Your task to perform on an android device: toggle wifi Image 0: 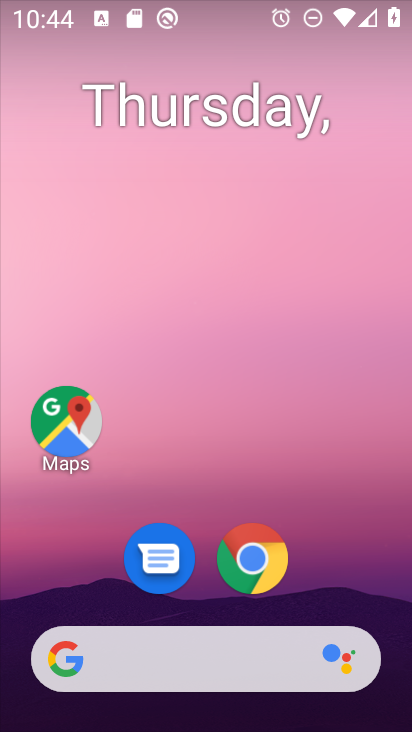
Step 0: drag from (396, 621) to (337, 109)
Your task to perform on an android device: toggle wifi Image 1: 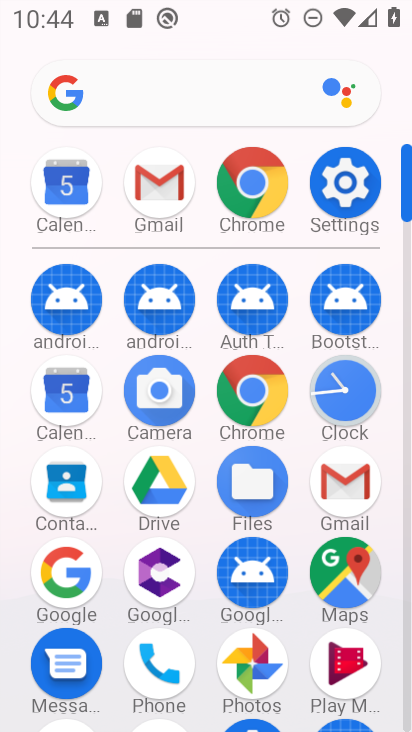
Step 1: click (405, 700)
Your task to perform on an android device: toggle wifi Image 2: 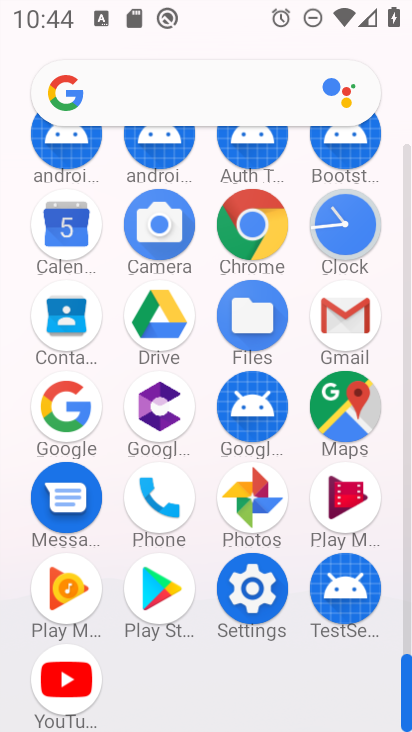
Step 2: click (254, 588)
Your task to perform on an android device: toggle wifi Image 3: 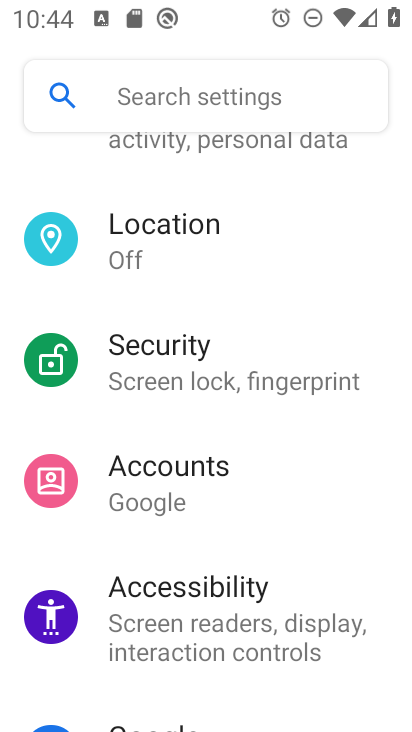
Step 3: drag from (309, 224) to (271, 514)
Your task to perform on an android device: toggle wifi Image 4: 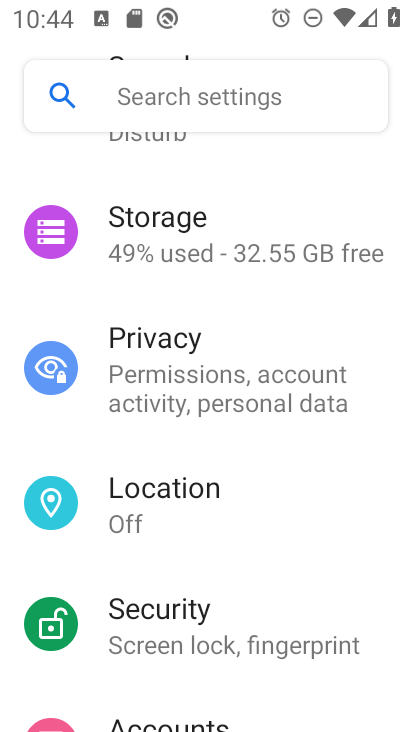
Step 4: drag from (331, 219) to (313, 521)
Your task to perform on an android device: toggle wifi Image 5: 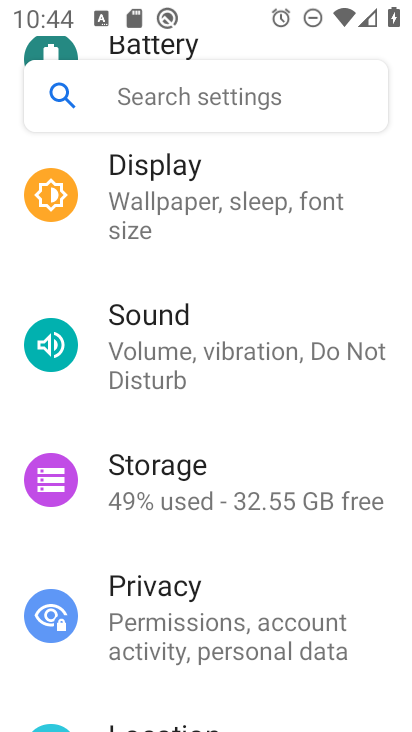
Step 5: drag from (335, 183) to (288, 492)
Your task to perform on an android device: toggle wifi Image 6: 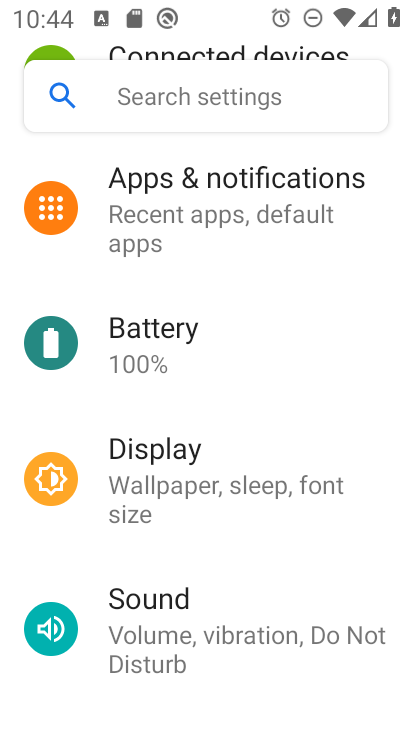
Step 6: drag from (348, 190) to (318, 473)
Your task to perform on an android device: toggle wifi Image 7: 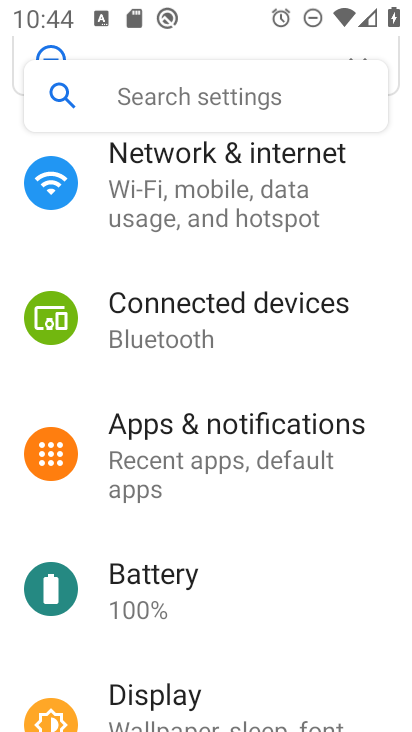
Step 7: click (151, 173)
Your task to perform on an android device: toggle wifi Image 8: 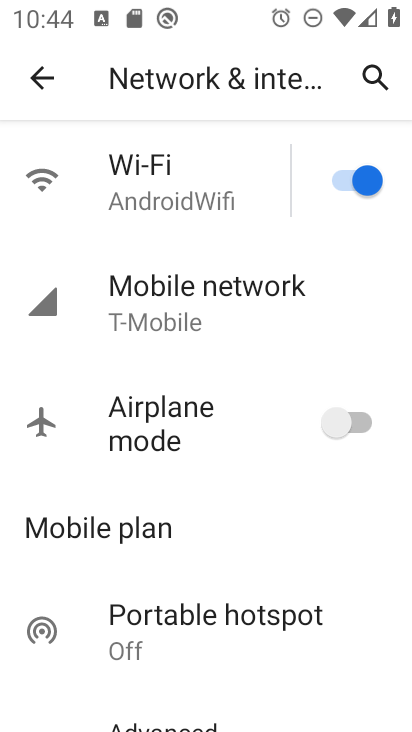
Step 8: click (337, 185)
Your task to perform on an android device: toggle wifi Image 9: 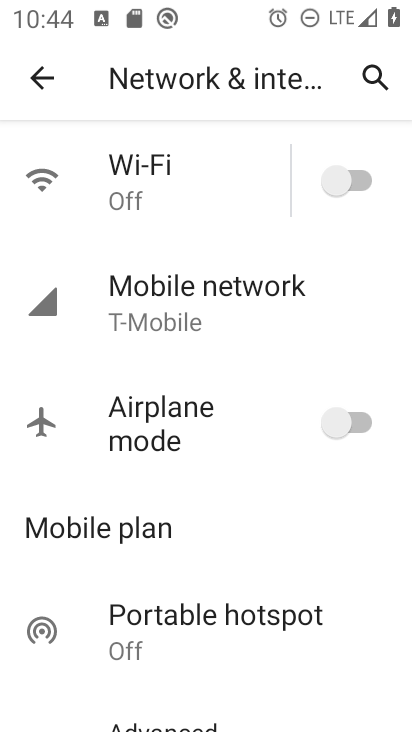
Step 9: task complete